Your task to perform on an android device: Clear the shopping cart on costco. Search for logitech g502 on costco, select the first entry, and add it to the cart. Image 0: 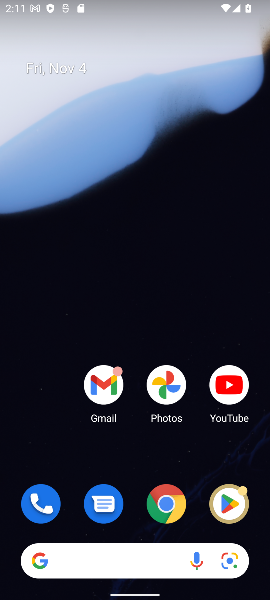
Step 0: press home button
Your task to perform on an android device: Clear the shopping cart on costco. Search for logitech g502 on costco, select the first entry, and add it to the cart. Image 1: 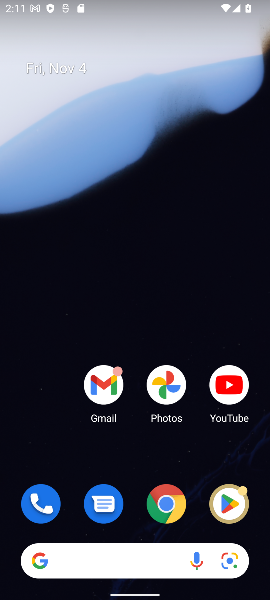
Step 1: click (166, 511)
Your task to perform on an android device: Clear the shopping cart on costco. Search for logitech g502 on costco, select the first entry, and add it to the cart. Image 2: 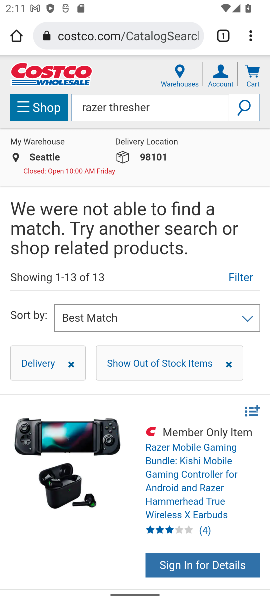
Step 2: click (254, 77)
Your task to perform on an android device: Clear the shopping cart on costco. Search for logitech g502 on costco, select the first entry, and add it to the cart. Image 3: 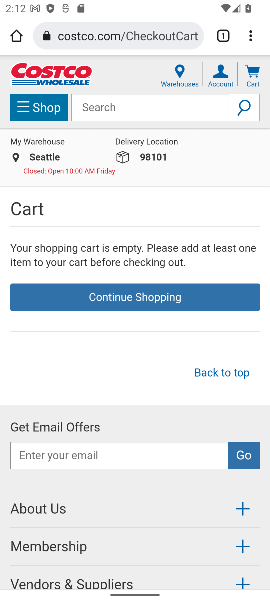
Step 3: click (138, 115)
Your task to perform on an android device: Clear the shopping cart on costco. Search for logitech g502 on costco, select the first entry, and add it to the cart. Image 4: 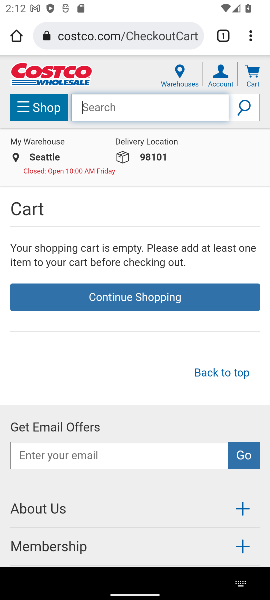
Step 4: type " logitech g502"
Your task to perform on an android device: Clear the shopping cart on costco. Search for logitech g502 on costco, select the first entry, and add it to the cart. Image 5: 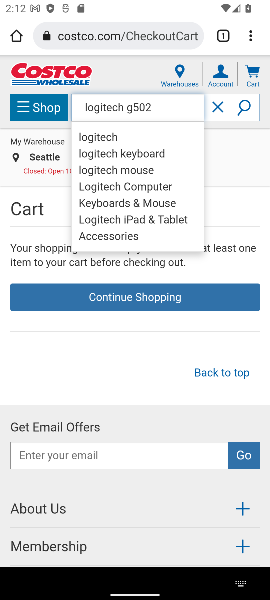
Step 5: click (248, 110)
Your task to perform on an android device: Clear the shopping cart on costco. Search for logitech g502 on costco, select the first entry, and add it to the cart. Image 6: 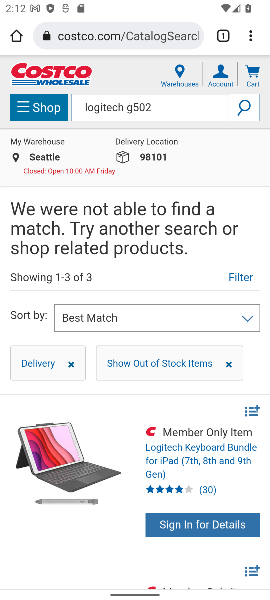
Step 6: task complete